Your task to perform on an android device: Check the news Image 0: 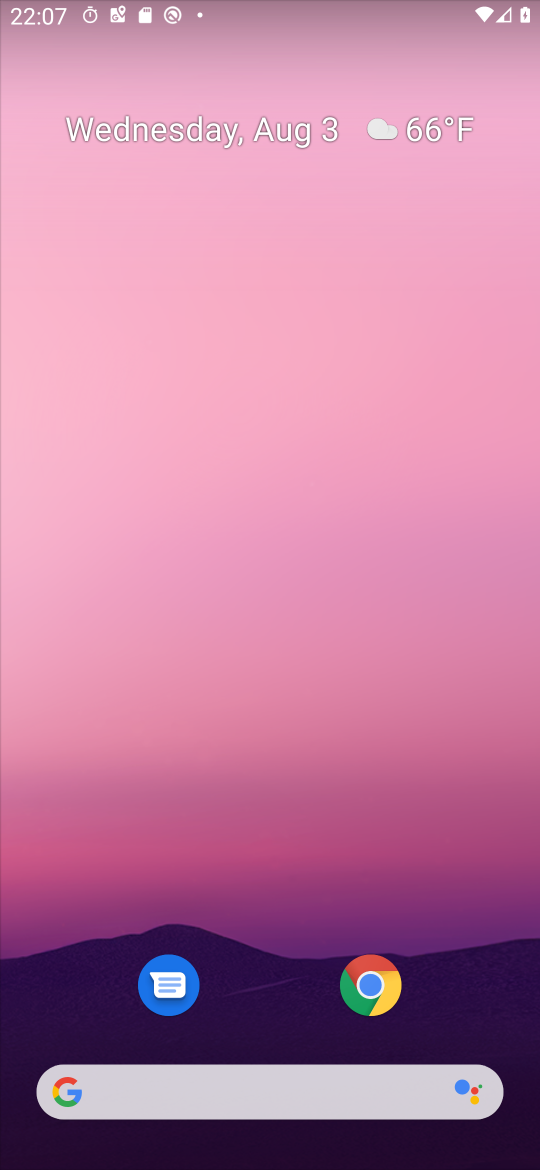
Step 0: drag from (274, 986) to (276, 251)
Your task to perform on an android device: Check the news Image 1: 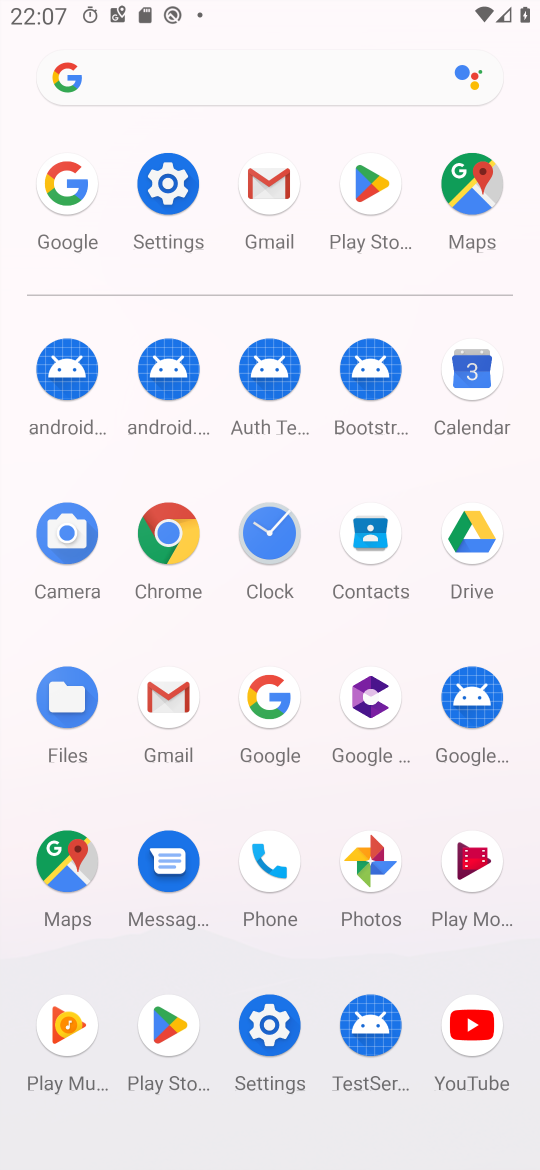
Step 1: click (275, 699)
Your task to perform on an android device: Check the news Image 2: 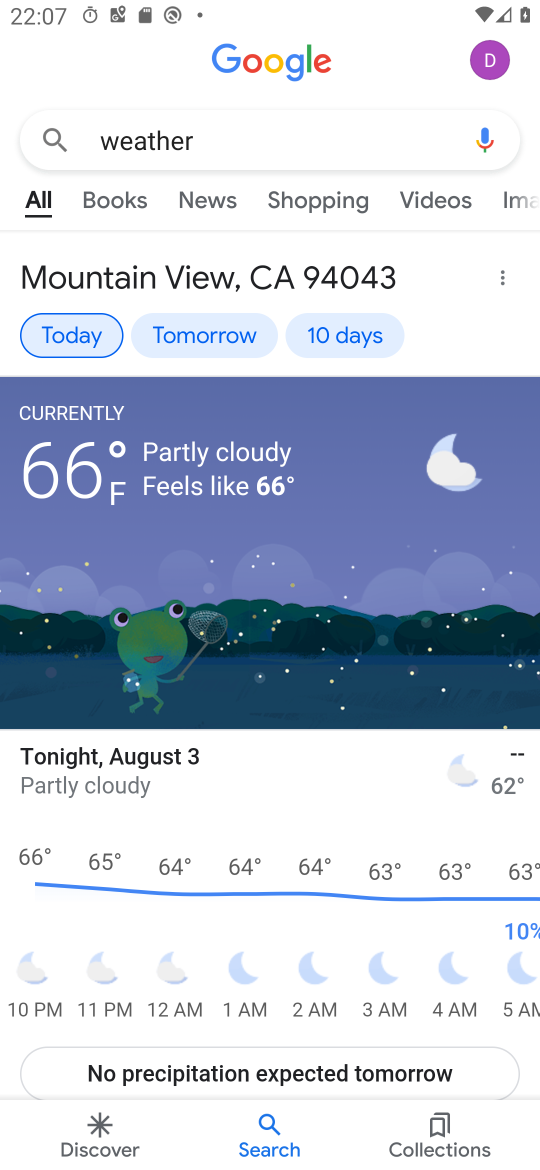
Step 2: click (224, 140)
Your task to perform on an android device: Check the news Image 3: 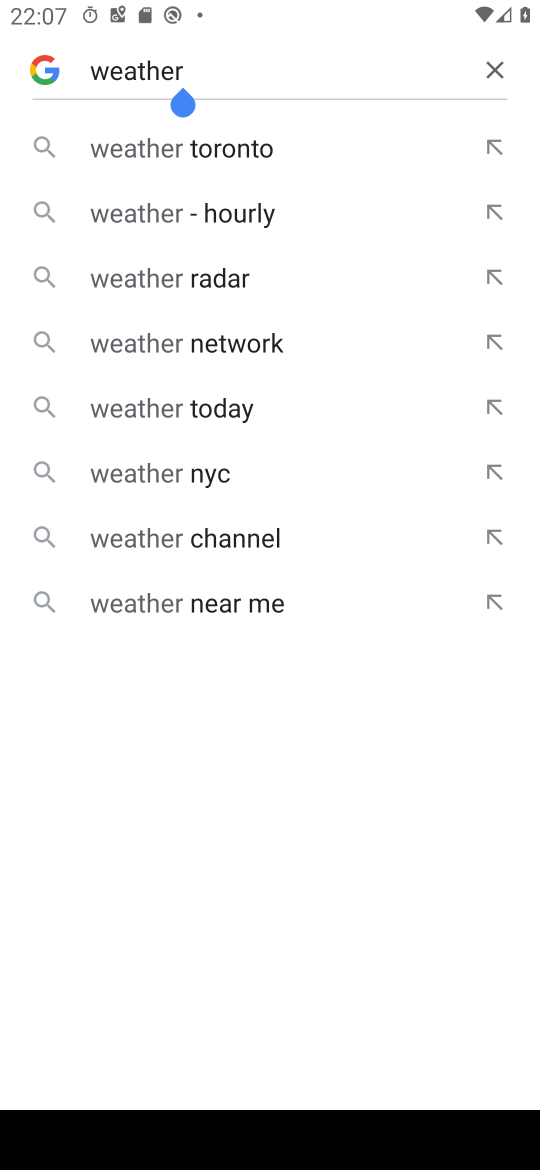
Step 3: click (489, 65)
Your task to perform on an android device: Check the news Image 4: 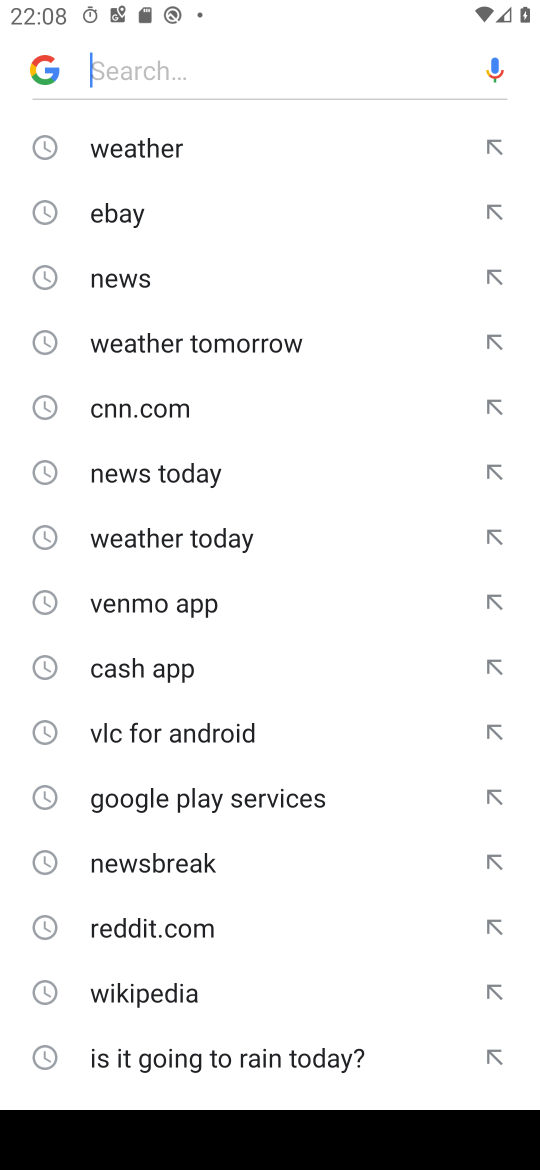
Step 4: type "news"
Your task to perform on an android device: Check the news Image 5: 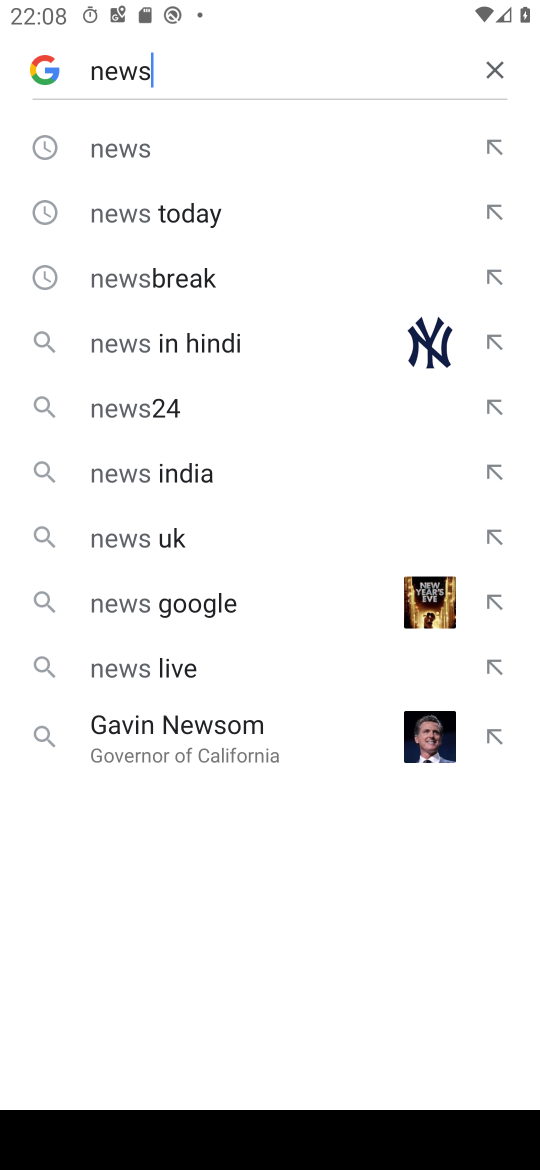
Step 5: click (161, 128)
Your task to perform on an android device: Check the news Image 6: 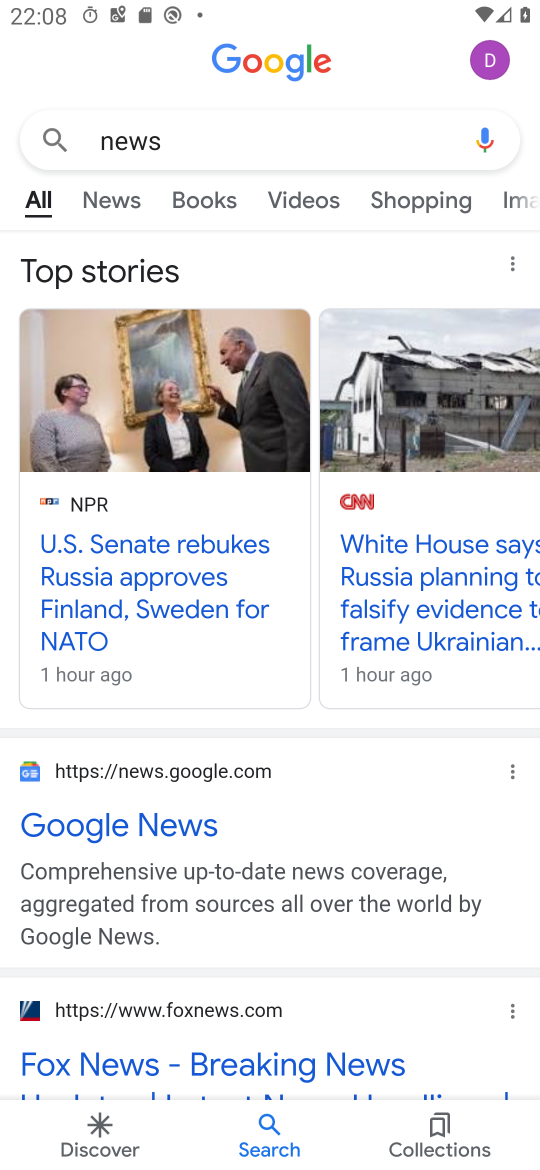
Step 6: click (123, 206)
Your task to perform on an android device: Check the news Image 7: 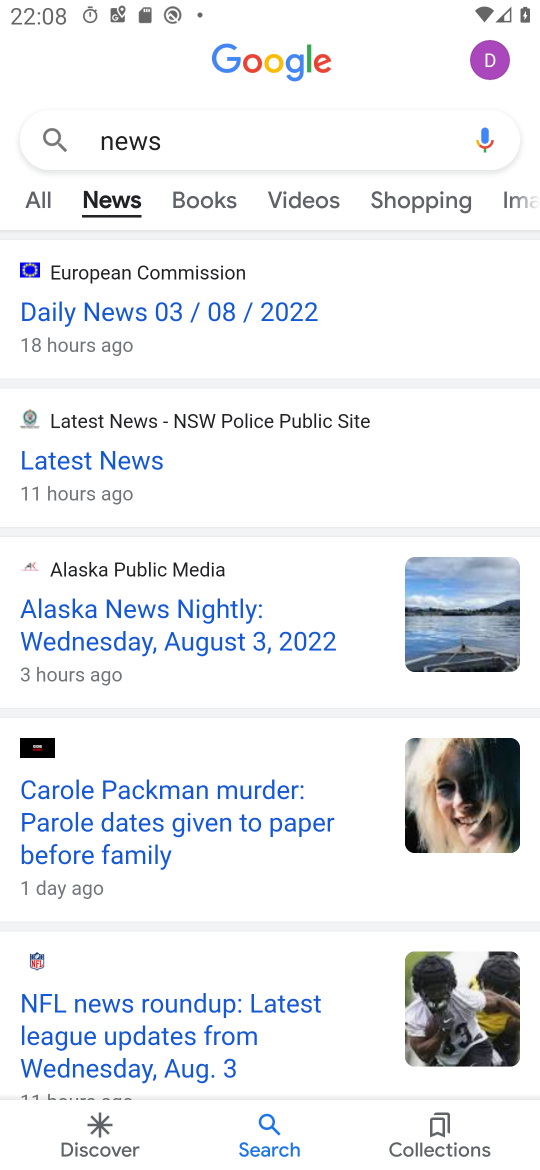
Step 7: task complete